Your task to perform on an android device: Open sound settings Image 0: 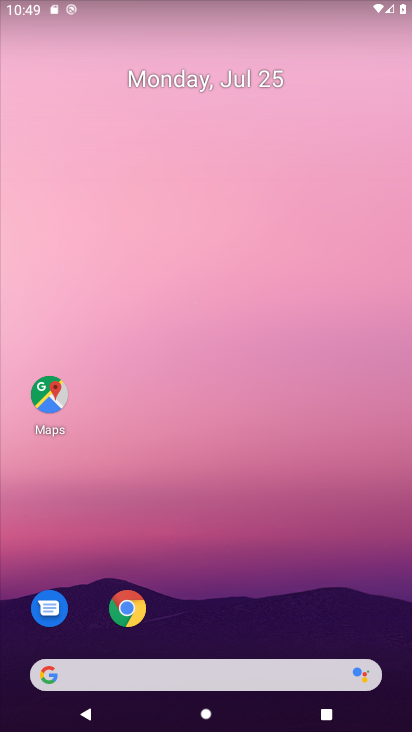
Step 0: drag from (191, 656) to (214, 92)
Your task to perform on an android device: Open sound settings Image 1: 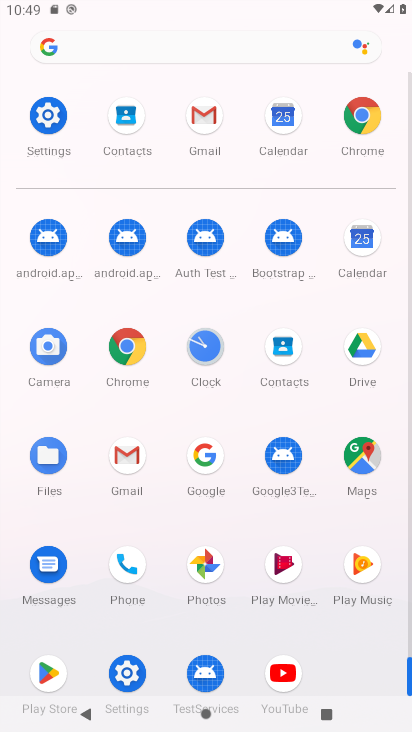
Step 1: drag from (319, 684) to (324, 99)
Your task to perform on an android device: Open sound settings Image 2: 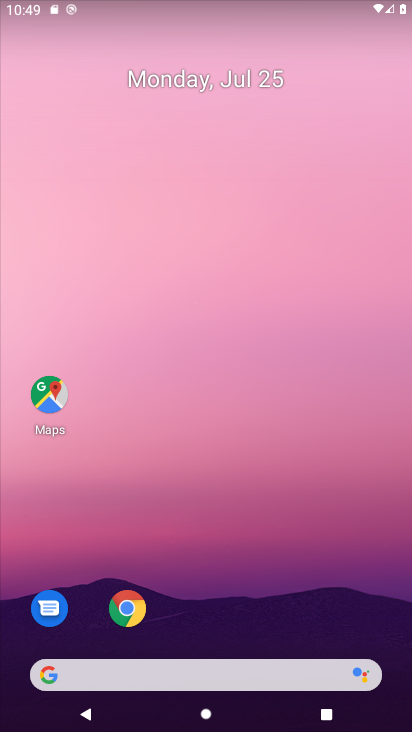
Step 2: drag from (320, 649) to (215, 32)
Your task to perform on an android device: Open sound settings Image 3: 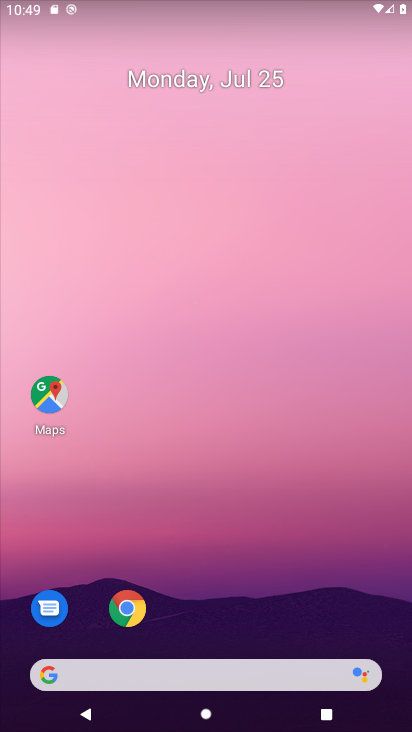
Step 3: drag from (291, 589) to (249, 118)
Your task to perform on an android device: Open sound settings Image 4: 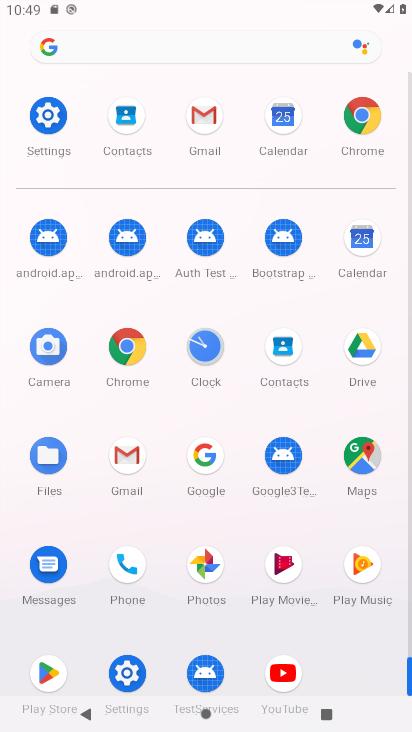
Step 4: drag from (229, 468) to (239, 69)
Your task to perform on an android device: Open sound settings Image 5: 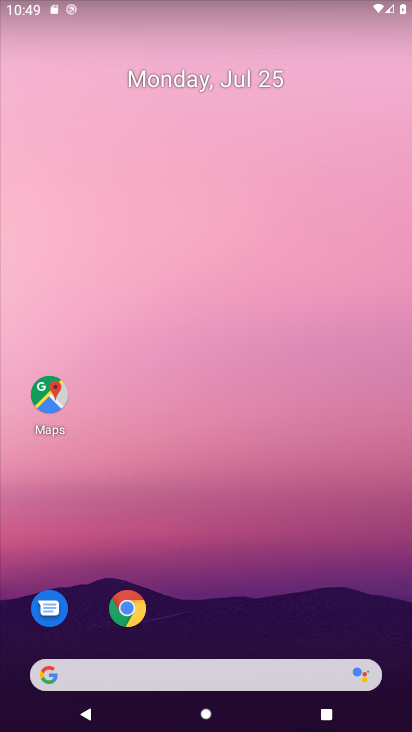
Step 5: click (35, 121)
Your task to perform on an android device: Open sound settings Image 6: 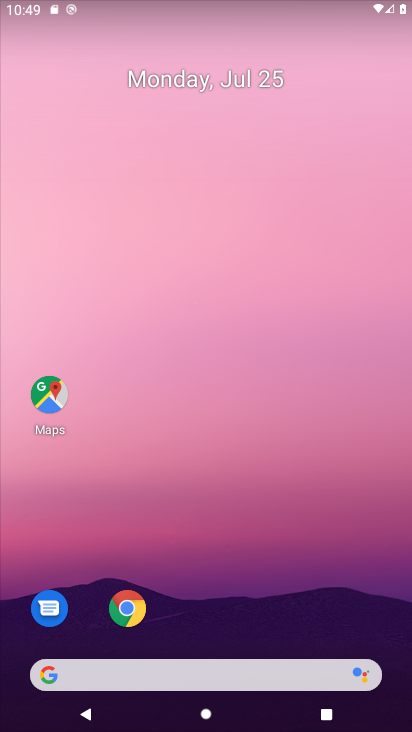
Step 6: drag from (248, 655) to (226, 175)
Your task to perform on an android device: Open sound settings Image 7: 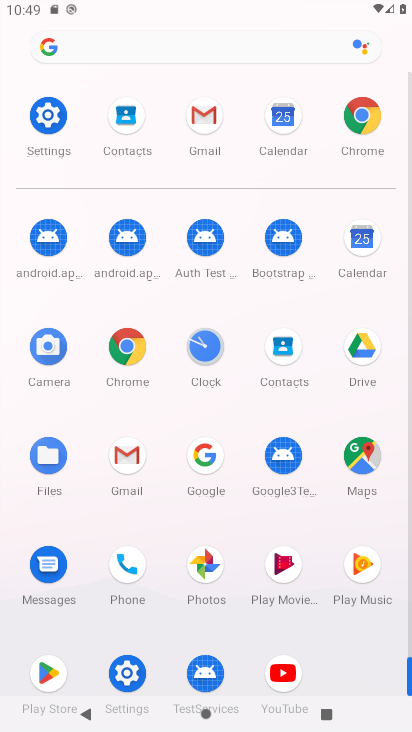
Step 7: click (47, 124)
Your task to perform on an android device: Open sound settings Image 8: 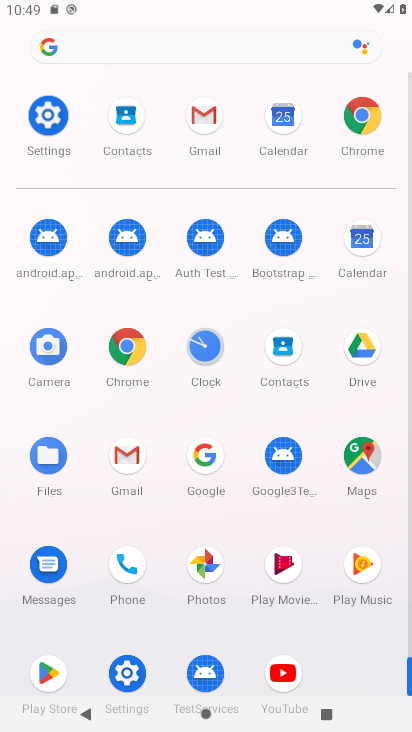
Step 8: click (53, 122)
Your task to perform on an android device: Open sound settings Image 9: 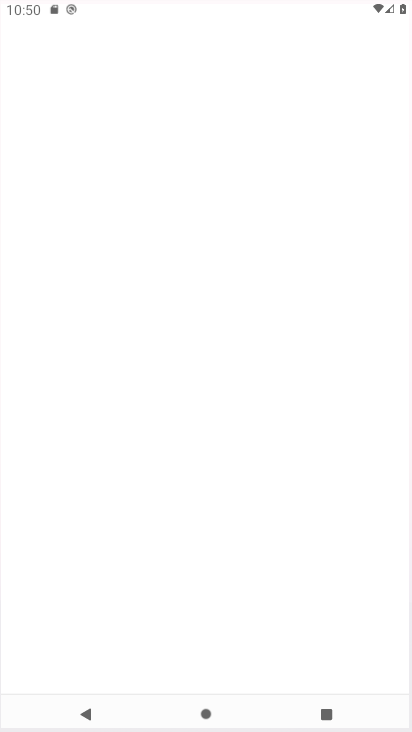
Step 9: click (54, 116)
Your task to perform on an android device: Open sound settings Image 10: 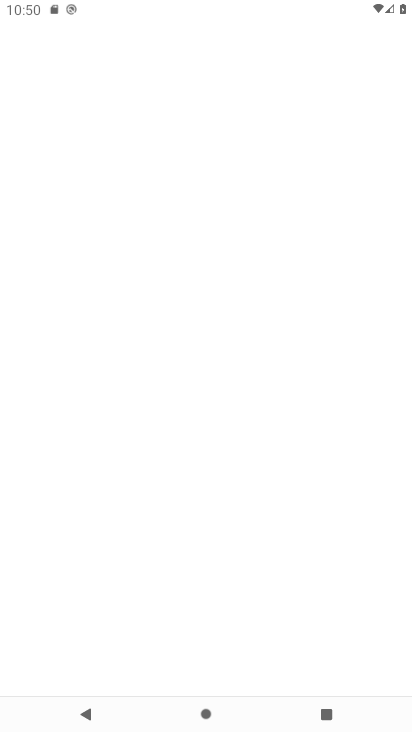
Step 10: click (50, 112)
Your task to perform on an android device: Open sound settings Image 11: 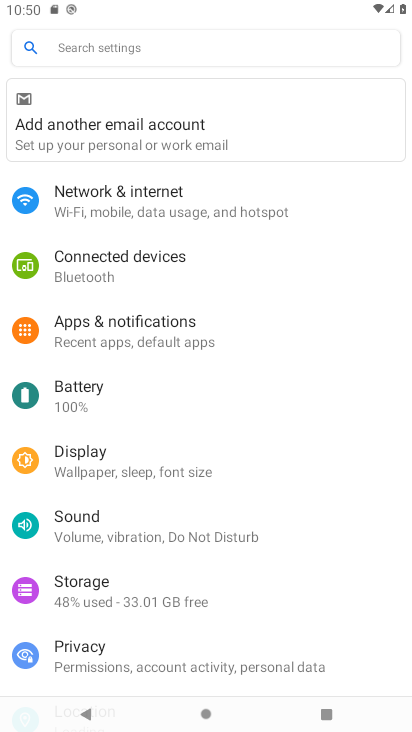
Step 11: drag from (137, 588) to (109, 370)
Your task to perform on an android device: Open sound settings Image 12: 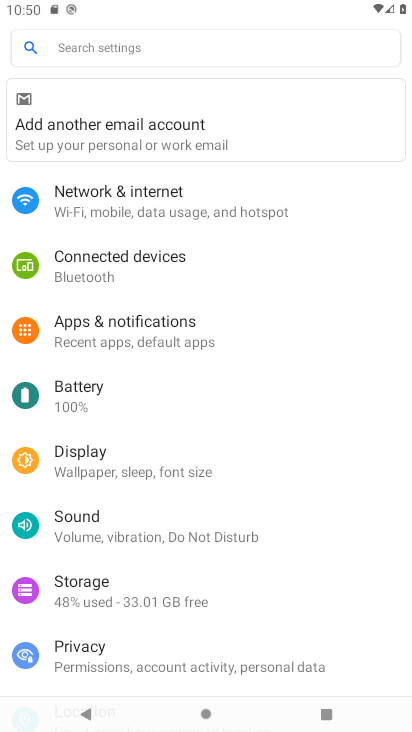
Step 12: click (90, 529)
Your task to perform on an android device: Open sound settings Image 13: 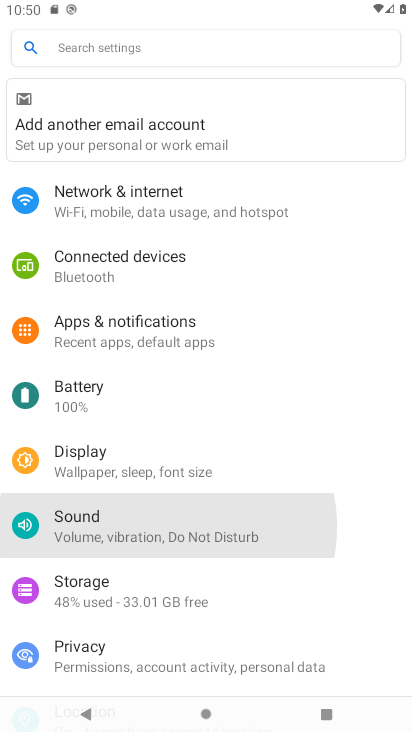
Step 13: click (89, 529)
Your task to perform on an android device: Open sound settings Image 14: 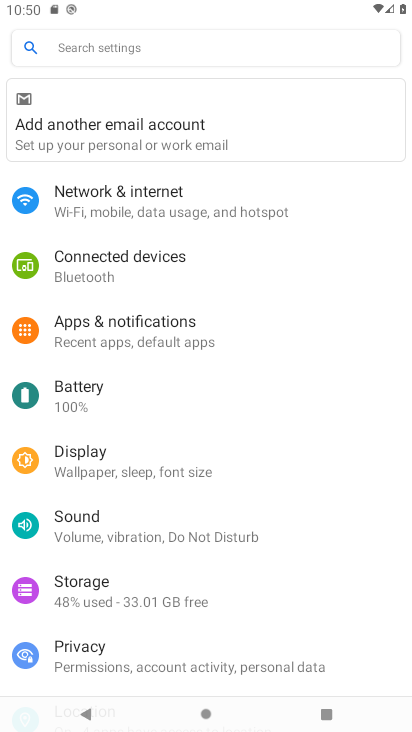
Step 14: click (88, 532)
Your task to perform on an android device: Open sound settings Image 15: 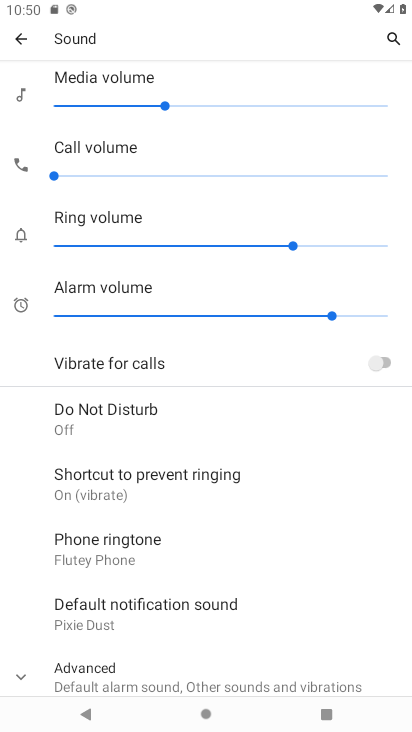
Step 15: drag from (201, 604) to (219, 233)
Your task to perform on an android device: Open sound settings Image 16: 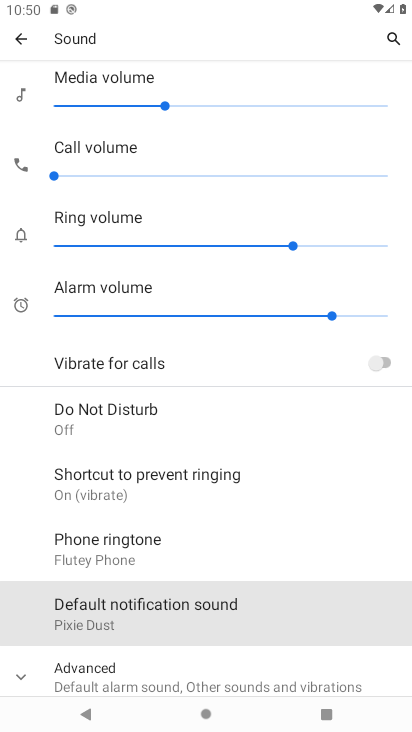
Step 16: drag from (238, 570) to (241, 56)
Your task to perform on an android device: Open sound settings Image 17: 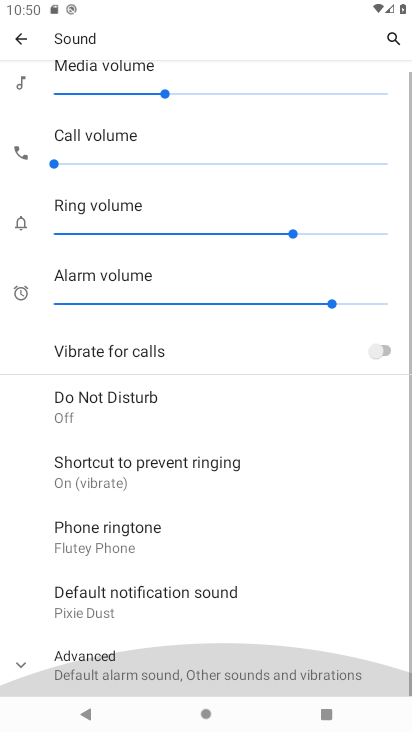
Step 17: drag from (190, 528) to (195, 36)
Your task to perform on an android device: Open sound settings Image 18: 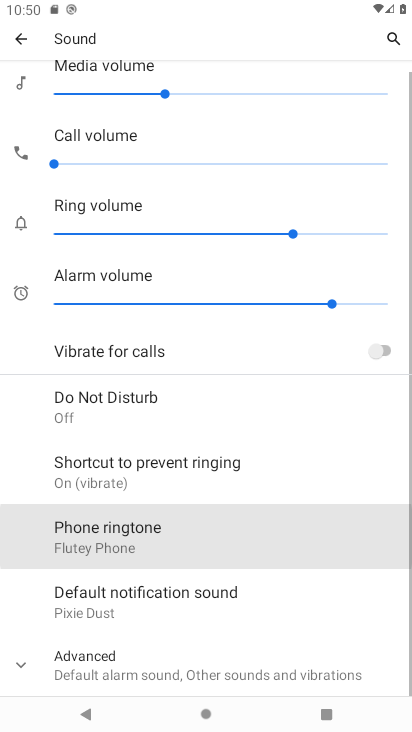
Step 18: drag from (184, 467) to (256, 76)
Your task to perform on an android device: Open sound settings Image 19: 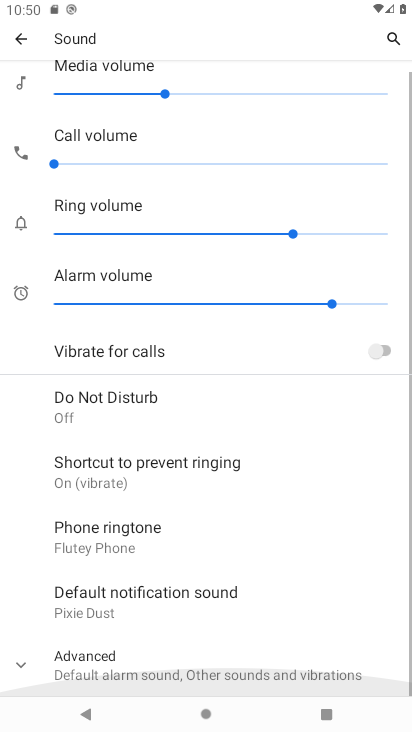
Step 19: click (324, 205)
Your task to perform on an android device: Open sound settings Image 20: 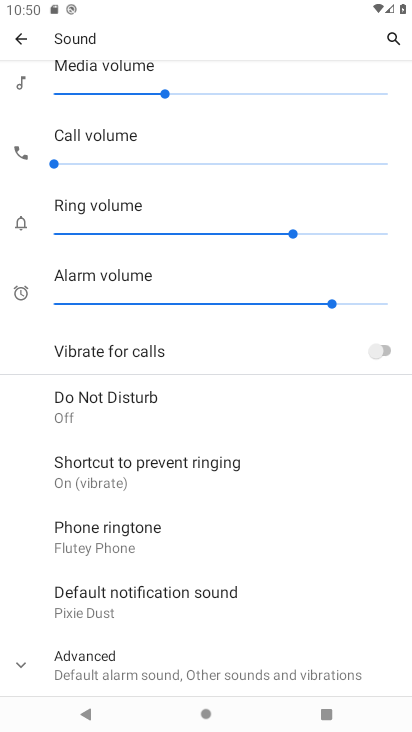
Step 20: task complete